Your task to perform on an android device: change timer sound Image 0: 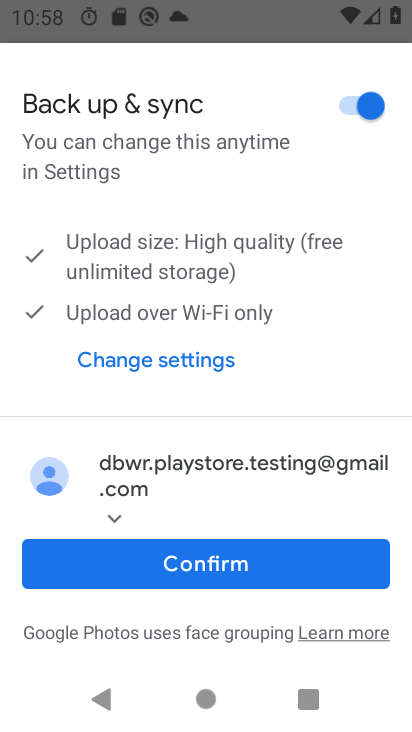
Step 0: press home button
Your task to perform on an android device: change timer sound Image 1: 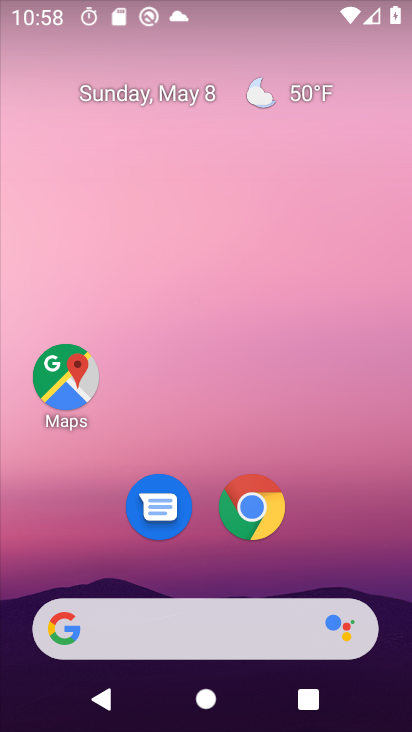
Step 1: drag from (222, 724) to (205, 187)
Your task to perform on an android device: change timer sound Image 2: 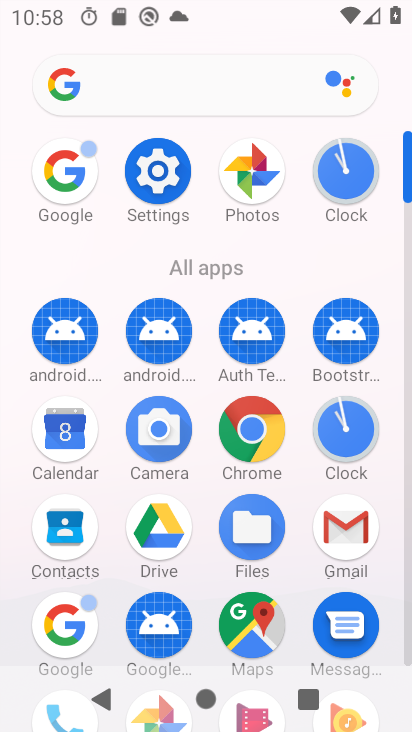
Step 2: click (348, 430)
Your task to perform on an android device: change timer sound Image 3: 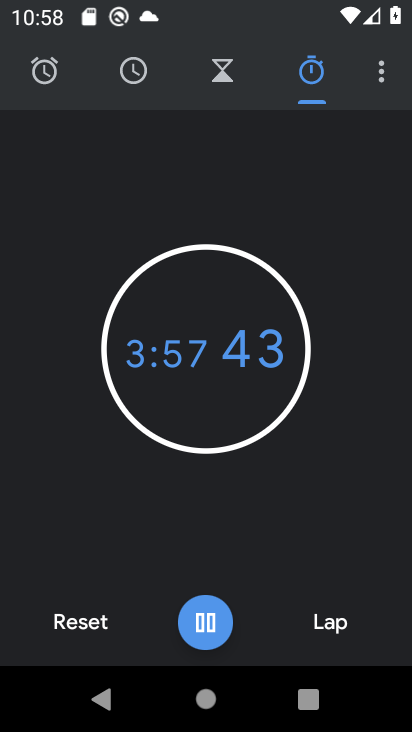
Step 3: click (382, 78)
Your task to perform on an android device: change timer sound Image 4: 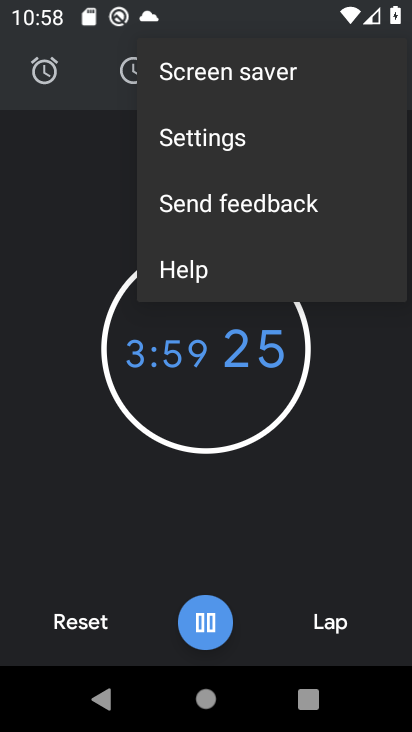
Step 4: click (233, 128)
Your task to perform on an android device: change timer sound Image 5: 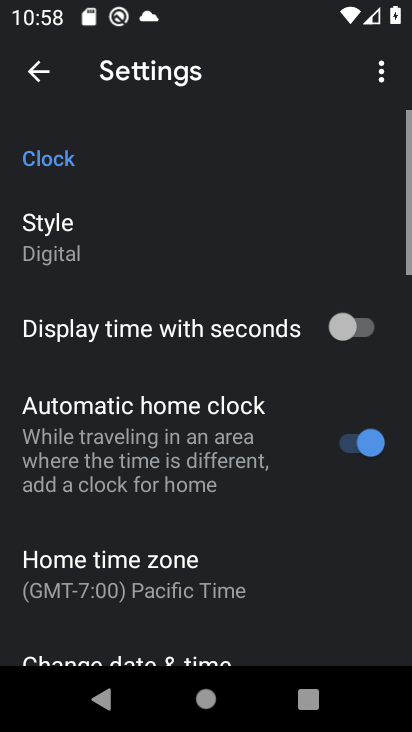
Step 5: drag from (156, 638) to (170, 290)
Your task to perform on an android device: change timer sound Image 6: 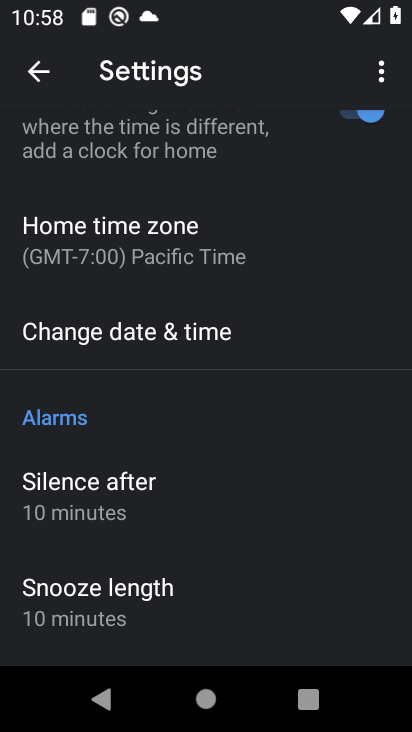
Step 6: drag from (181, 637) to (158, 278)
Your task to perform on an android device: change timer sound Image 7: 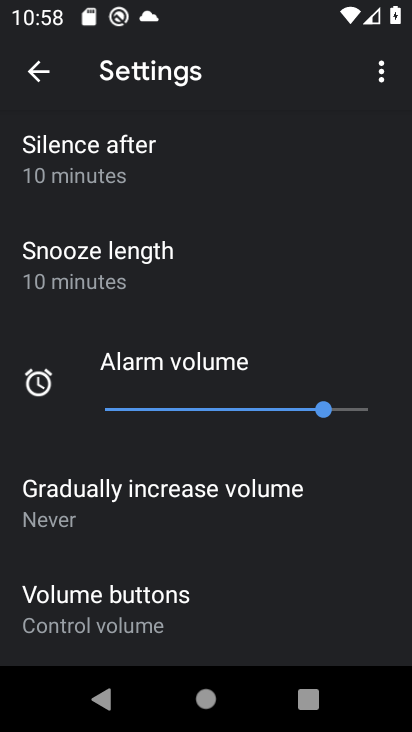
Step 7: drag from (186, 632) to (203, 340)
Your task to perform on an android device: change timer sound Image 8: 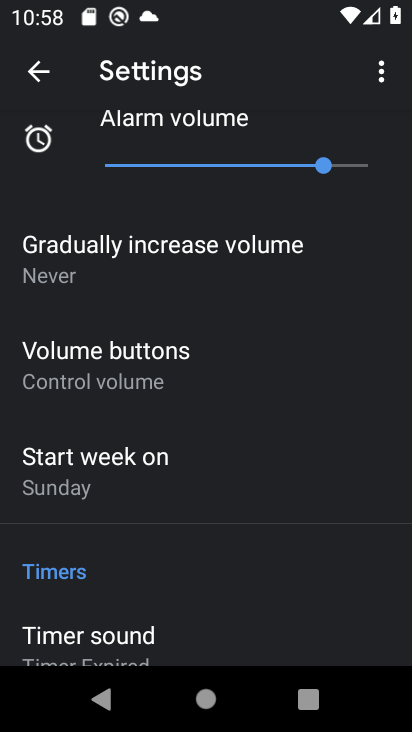
Step 8: drag from (217, 628) to (204, 392)
Your task to perform on an android device: change timer sound Image 9: 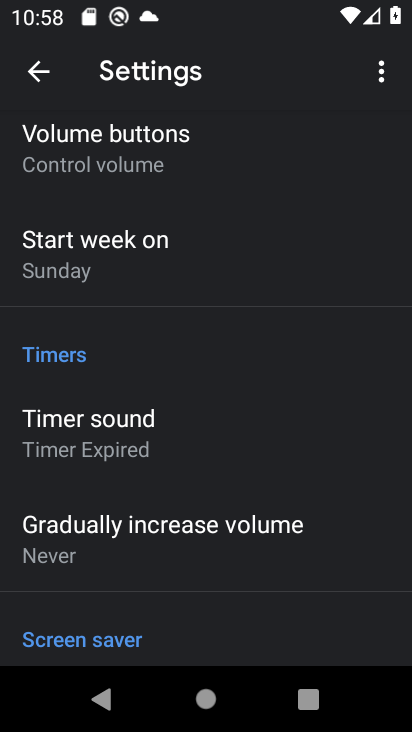
Step 9: click (81, 433)
Your task to perform on an android device: change timer sound Image 10: 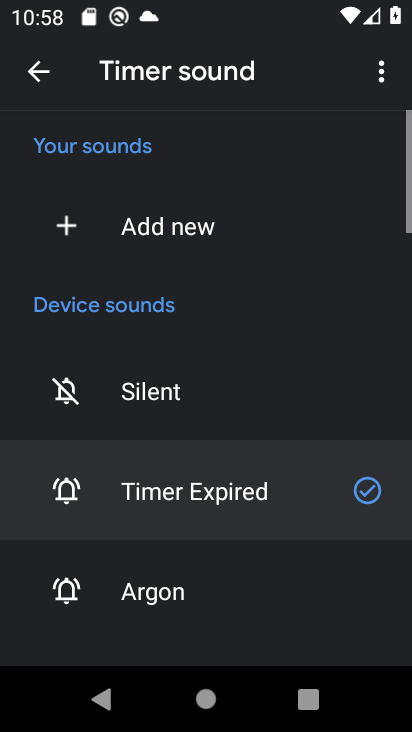
Step 10: click (177, 597)
Your task to perform on an android device: change timer sound Image 11: 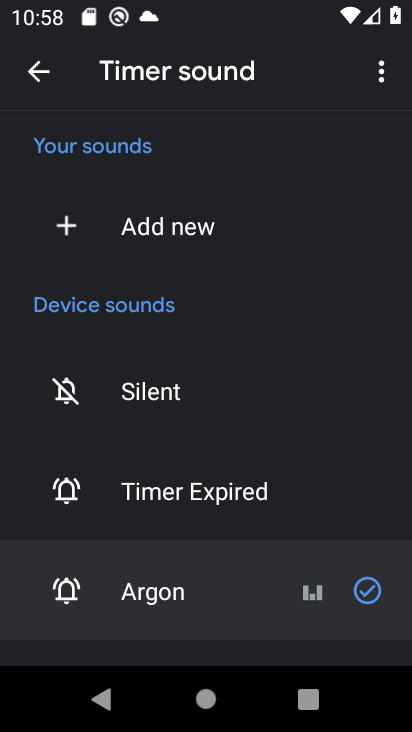
Step 11: task complete